Your task to perform on an android device: show emergency info Image 0: 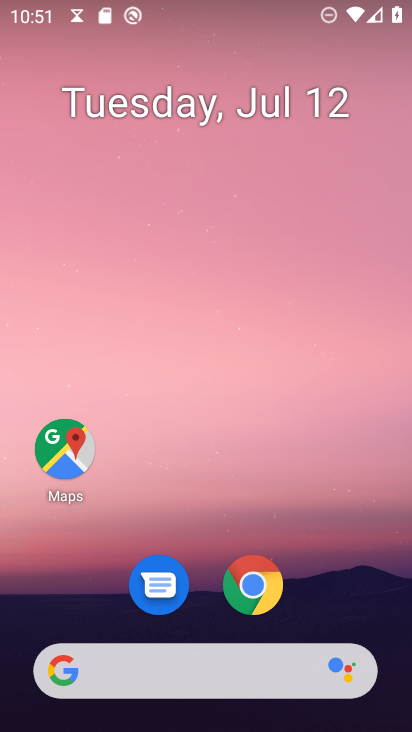
Step 0: drag from (212, 665) to (200, 84)
Your task to perform on an android device: show emergency info Image 1: 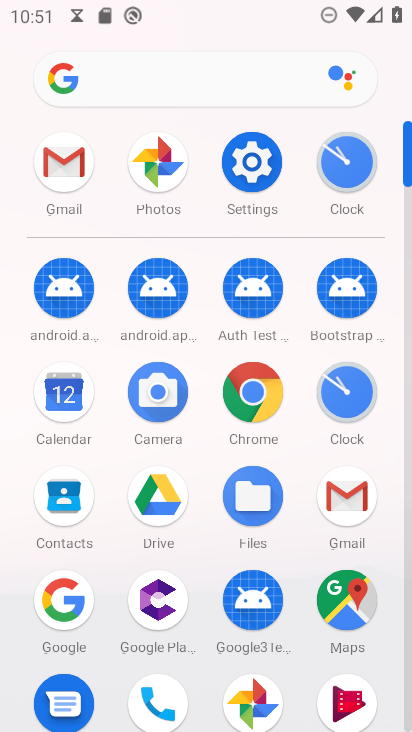
Step 1: click (252, 172)
Your task to perform on an android device: show emergency info Image 2: 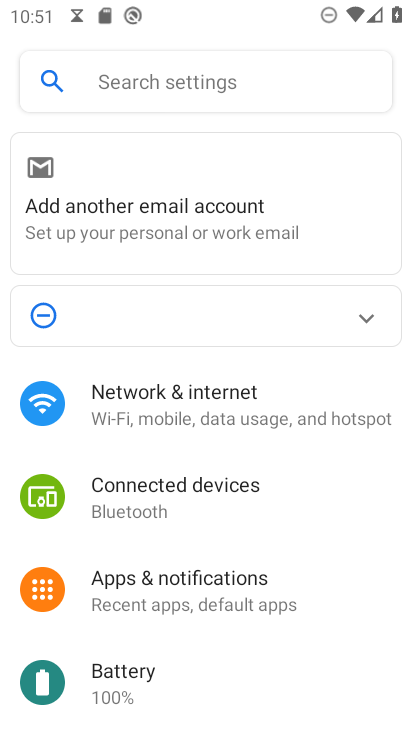
Step 2: drag from (234, 659) to (193, 14)
Your task to perform on an android device: show emergency info Image 3: 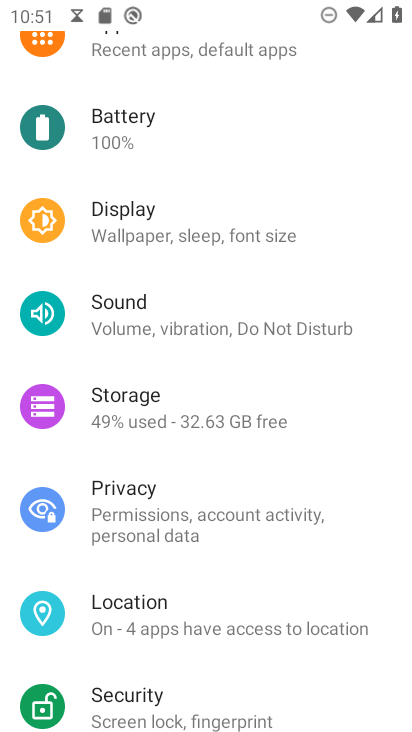
Step 3: drag from (253, 645) to (267, 73)
Your task to perform on an android device: show emergency info Image 4: 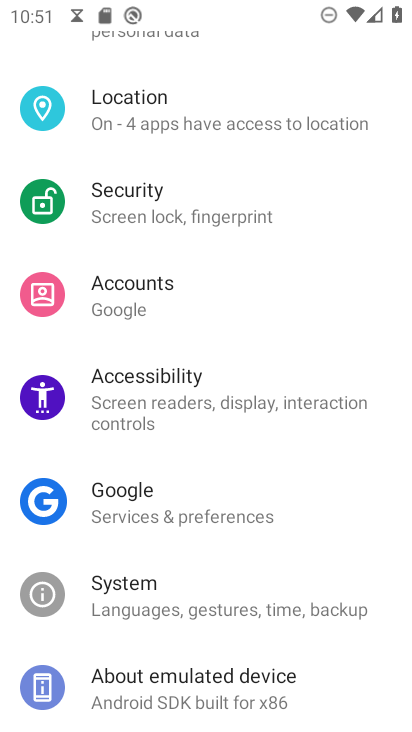
Step 4: click (223, 682)
Your task to perform on an android device: show emergency info Image 5: 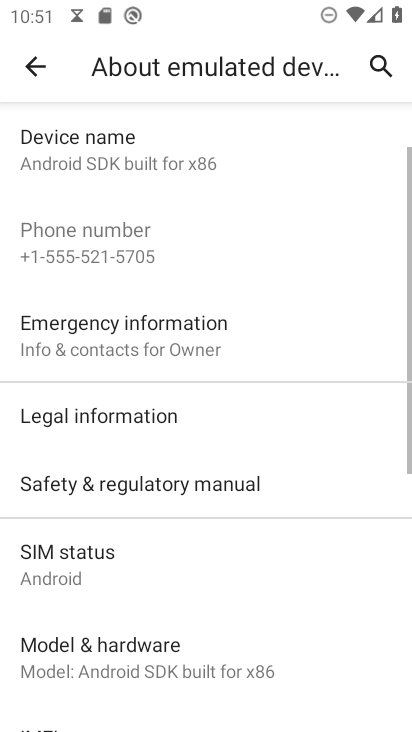
Step 5: click (166, 345)
Your task to perform on an android device: show emergency info Image 6: 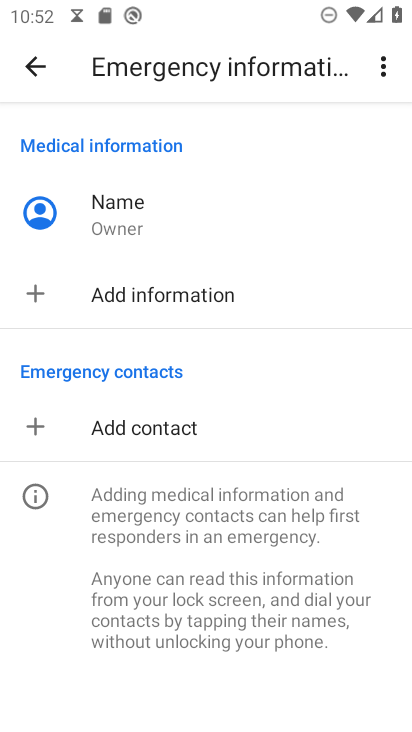
Step 6: task complete